Your task to perform on an android device: visit the assistant section in the google photos Image 0: 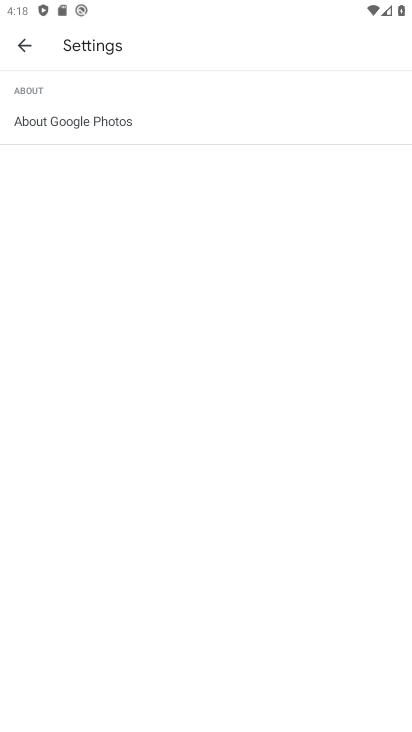
Step 0: press home button
Your task to perform on an android device: visit the assistant section in the google photos Image 1: 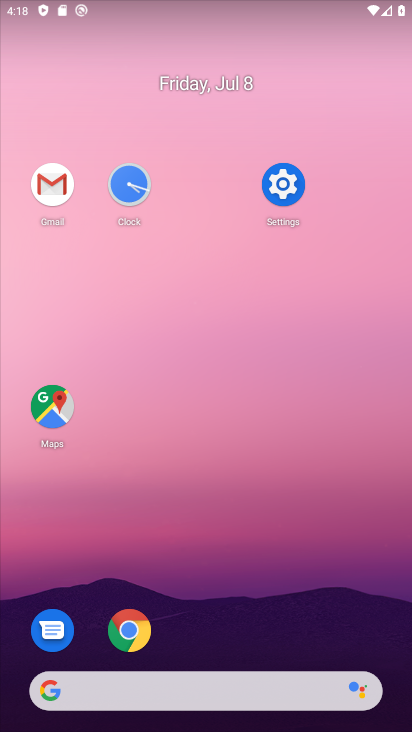
Step 1: drag from (258, 576) to (371, 15)
Your task to perform on an android device: visit the assistant section in the google photos Image 2: 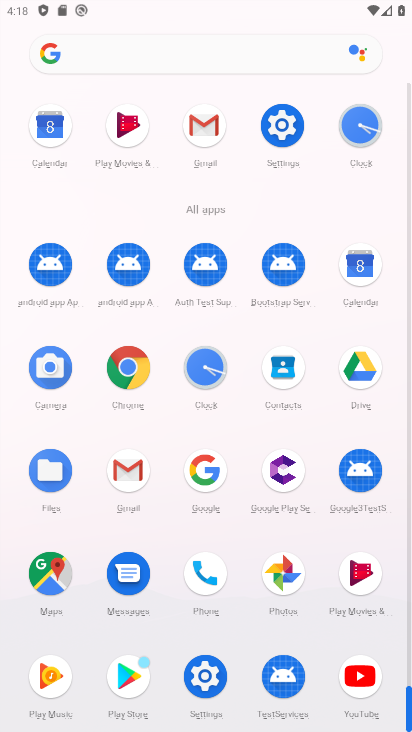
Step 2: click (275, 557)
Your task to perform on an android device: visit the assistant section in the google photos Image 3: 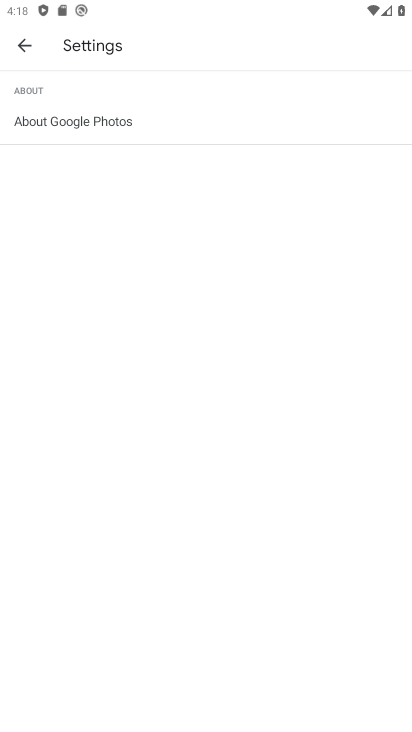
Step 3: click (13, 43)
Your task to perform on an android device: visit the assistant section in the google photos Image 4: 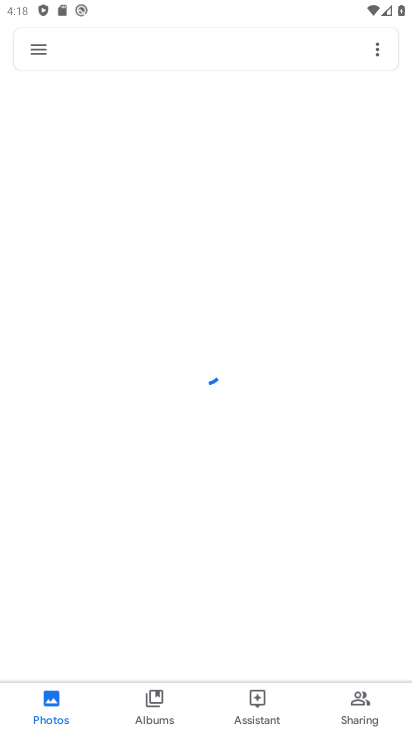
Step 4: click (271, 701)
Your task to perform on an android device: visit the assistant section in the google photos Image 5: 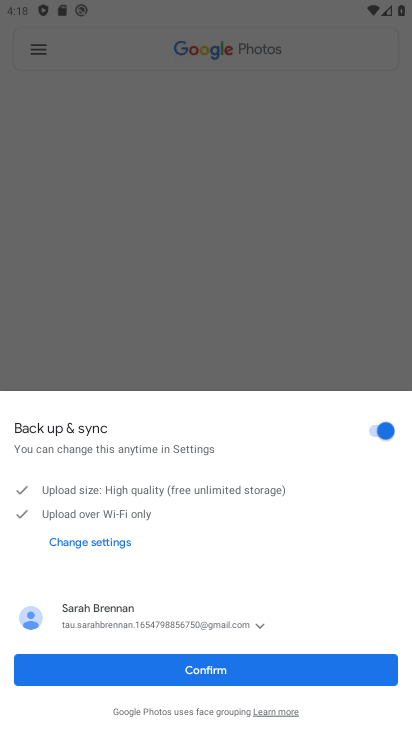
Step 5: click (272, 678)
Your task to perform on an android device: visit the assistant section in the google photos Image 6: 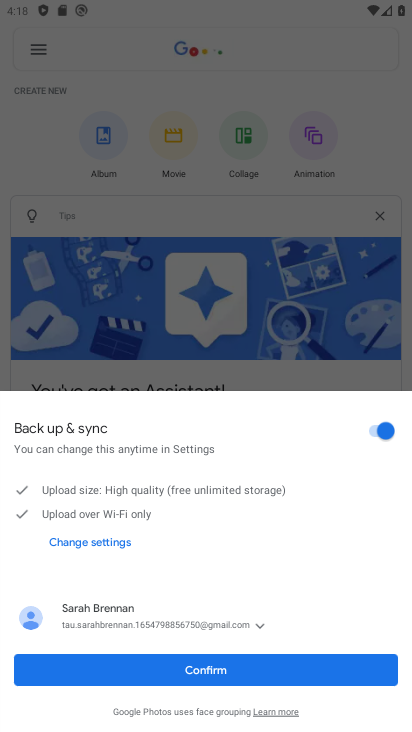
Step 6: click (285, 669)
Your task to perform on an android device: visit the assistant section in the google photos Image 7: 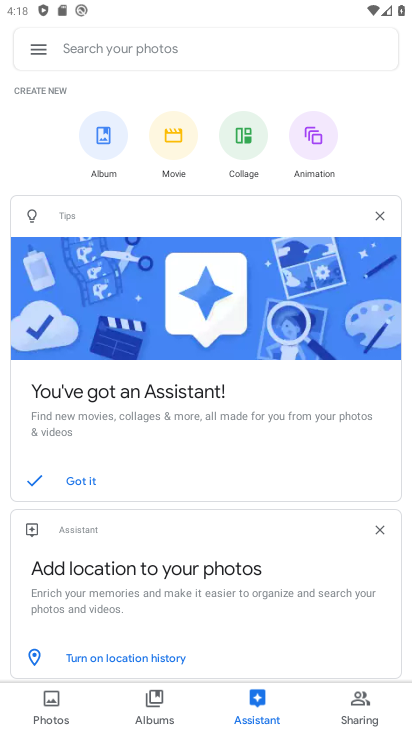
Step 7: task complete